Your task to perform on an android device: Open display settings Image 0: 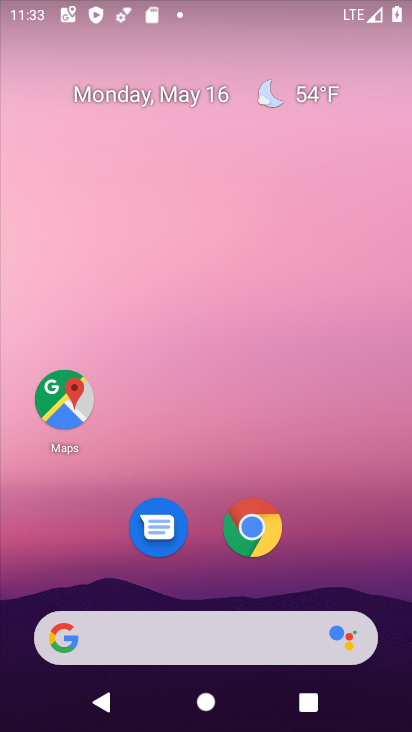
Step 0: press home button
Your task to perform on an android device: Open display settings Image 1: 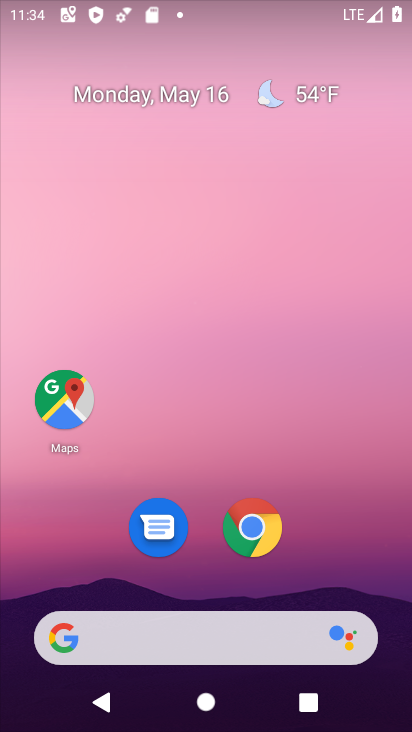
Step 1: drag from (292, 680) to (191, 257)
Your task to perform on an android device: Open display settings Image 2: 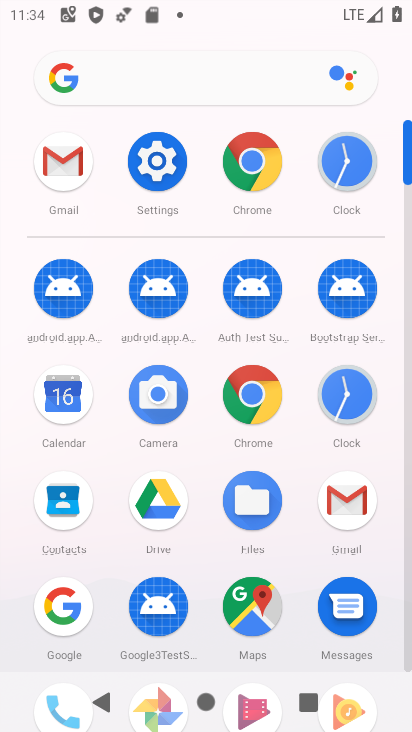
Step 2: click (171, 176)
Your task to perform on an android device: Open display settings Image 3: 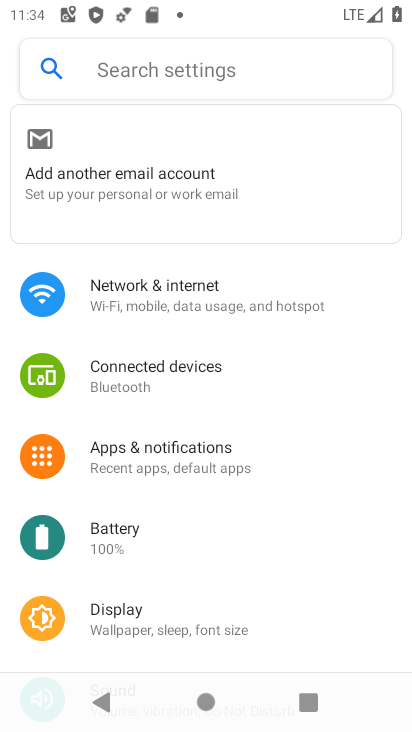
Step 3: click (147, 613)
Your task to perform on an android device: Open display settings Image 4: 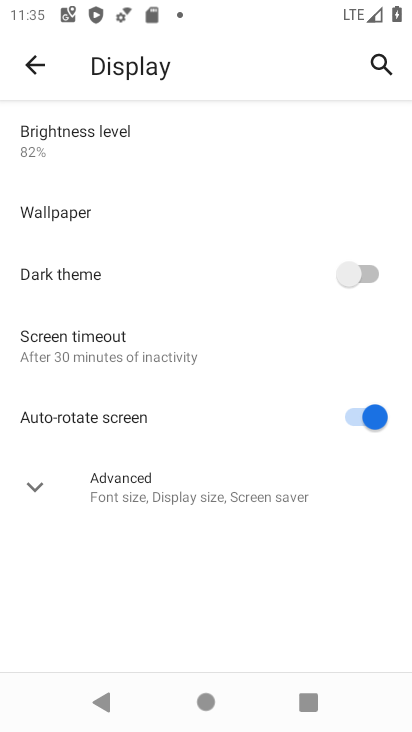
Step 4: task complete